Your task to perform on an android device: Open Google Maps Image 0: 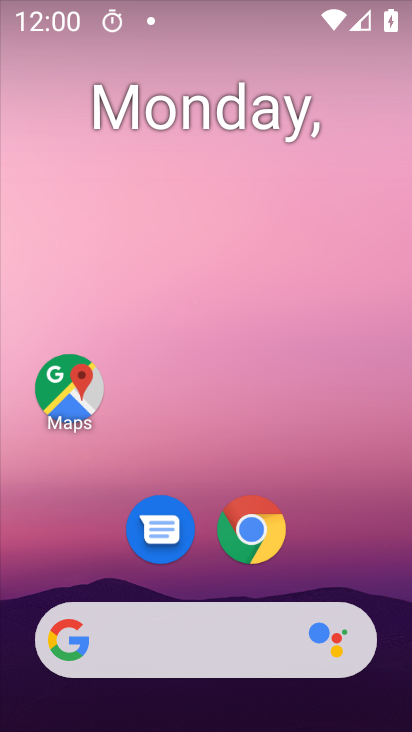
Step 0: drag from (379, 577) to (376, 228)
Your task to perform on an android device: Open Google Maps Image 1: 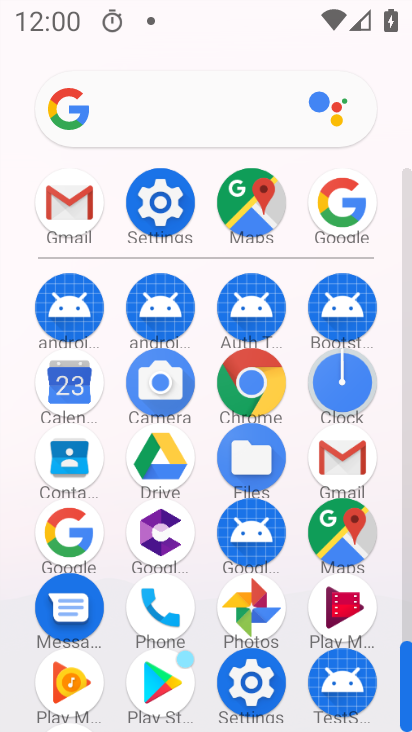
Step 1: click (346, 545)
Your task to perform on an android device: Open Google Maps Image 2: 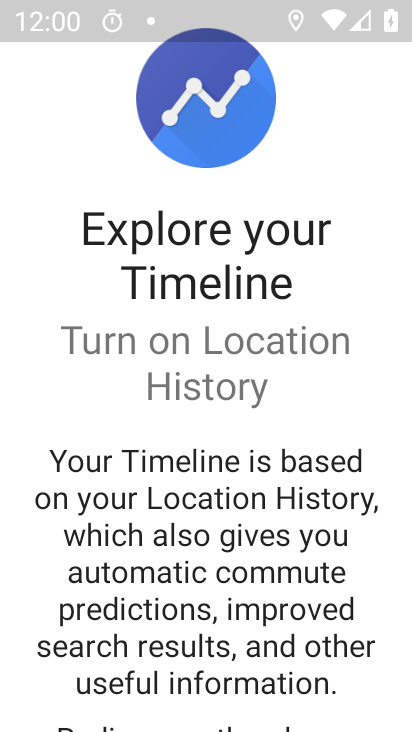
Step 2: task complete